Your task to perform on an android device: turn on improve location accuracy Image 0: 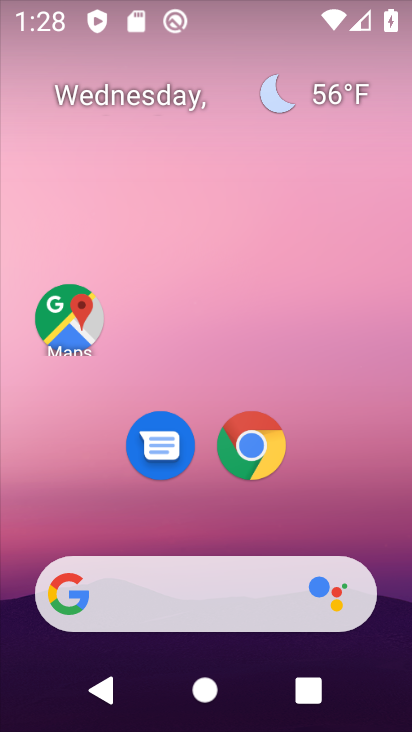
Step 0: drag from (220, 546) to (112, 0)
Your task to perform on an android device: turn on improve location accuracy Image 1: 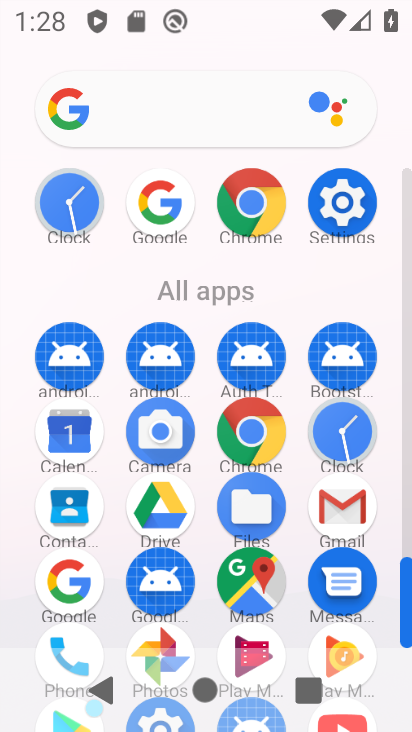
Step 1: click (317, 196)
Your task to perform on an android device: turn on improve location accuracy Image 2: 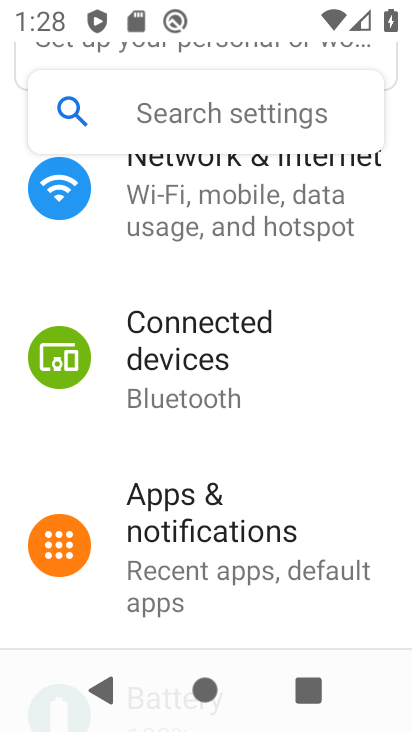
Step 2: drag from (254, 529) to (207, 71)
Your task to perform on an android device: turn on improve location accuracy Image 3: 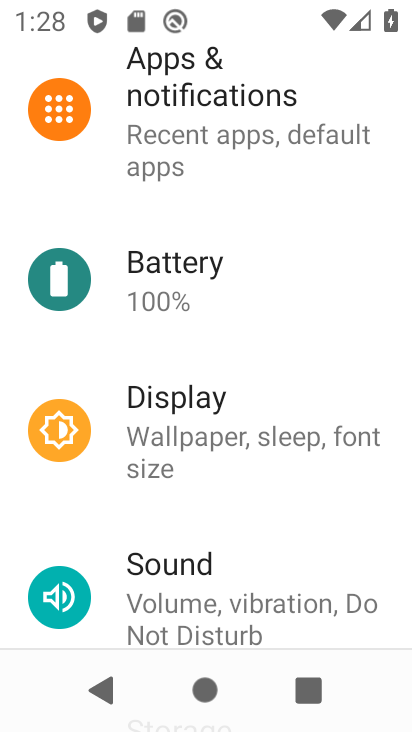
Step 3: drag from (209, 478) to (95, 28)
Your task to perform on an android device: turn on improve location accuracy Image 4: 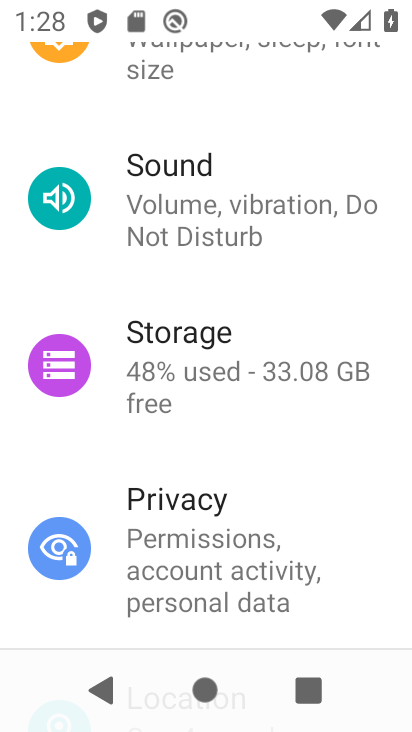
Step 4: drag from (196, 461) to (151, 34)
Your task to perform on an android device: turn on improve location accuracy Image 5: 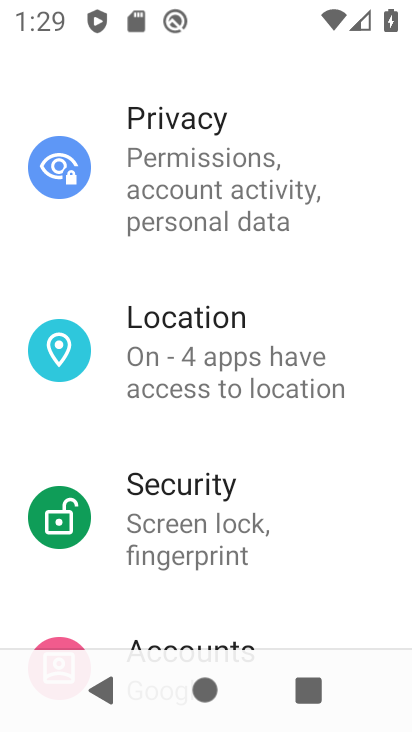
Step 5: click (71, 339)
Your task to perform on an android device: turn on improve location accuracy Image 6: 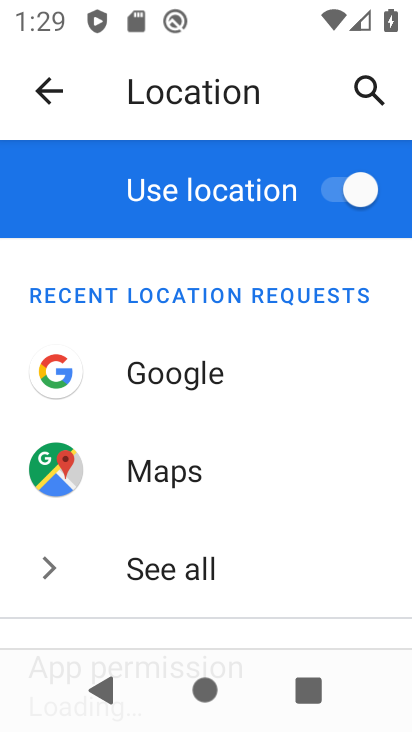
Step 6: task complete